Your task to perform on an android device: toggle airplane mode Image 0: 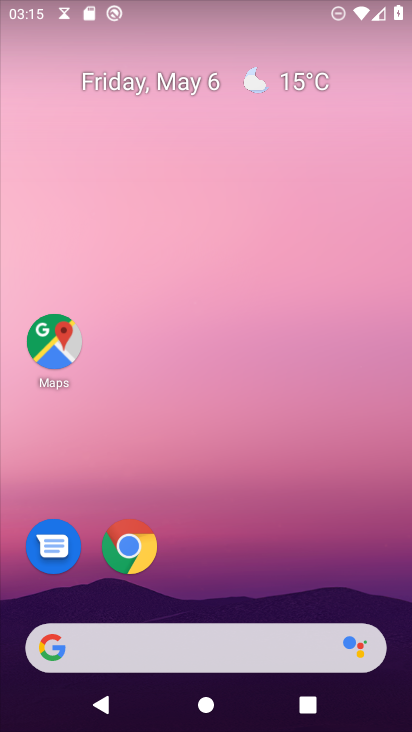
Step 0: drag from (261, 554) to (312, 146)
Your task to perform on an android device: toggle airplane mode Image 1: 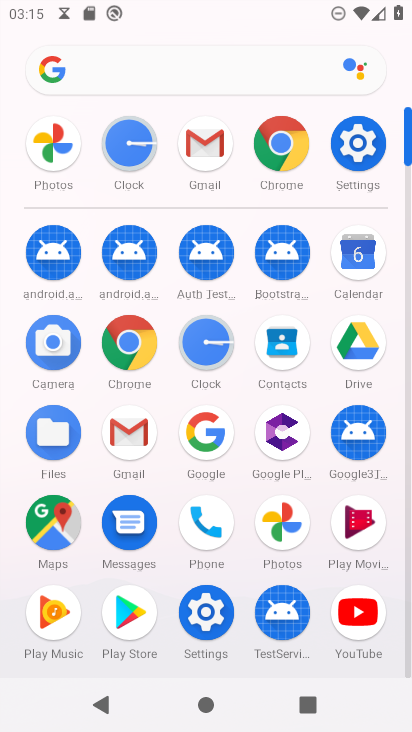
Step 1: click (358, 159)
Your task to perform on an android device: toggle airplane mode Image 2: 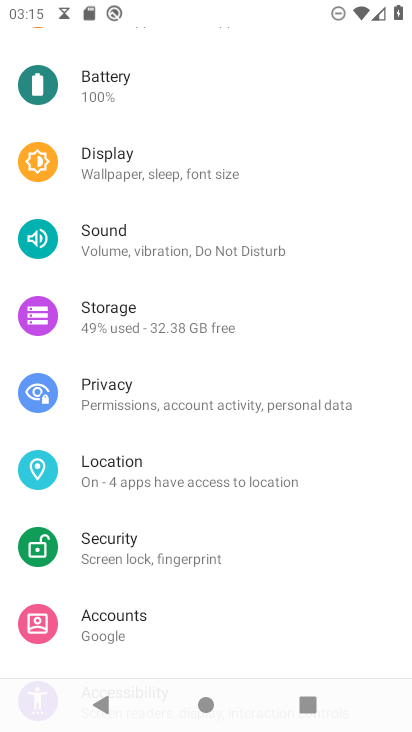
Step 2: drag from (242, 151) to (251, 438)
Your task to perform on an android device: toggle airplane mode Image 3: 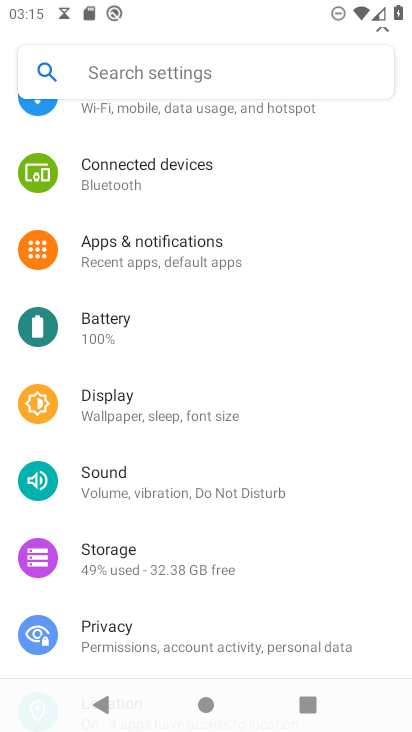
Step 3: click (199, 114)
Your task to perform on an android device: toggle airplane mode Image 4: 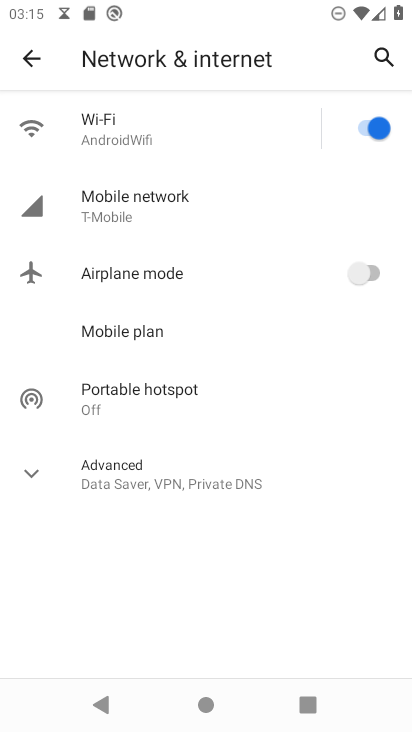
Step 4: click (372, 272)
Your task to perform on an android device: toggle airplane mode Image 5: 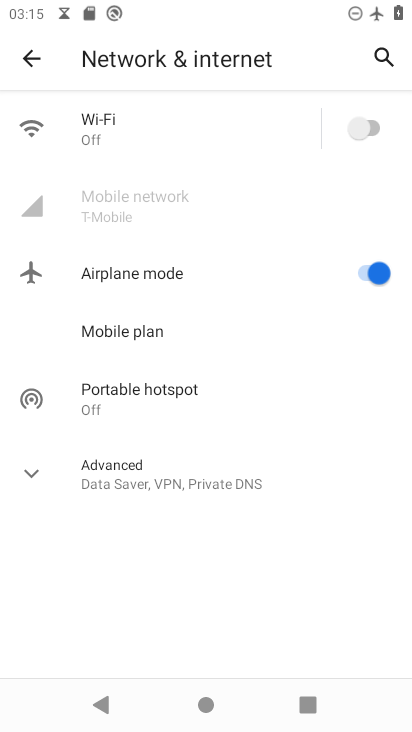
Step 5: task complete